Your task to perform on an android device: Open sound settings Image 0: 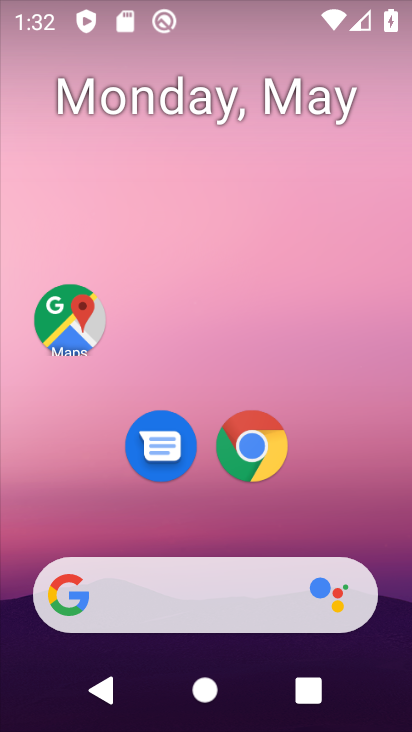
Step 0: press home button
Your task to perform on an android device: Open sound settings Image 1: 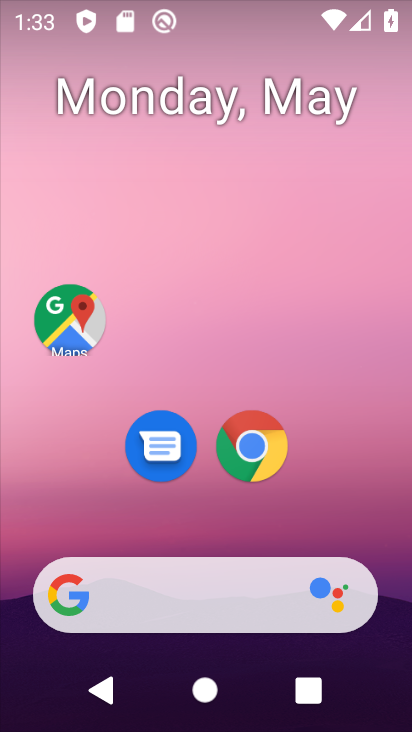
Step 1: drag from (192, 597) to (204, 26)
Your task to perform on an android device: Open sound settings Image 2: 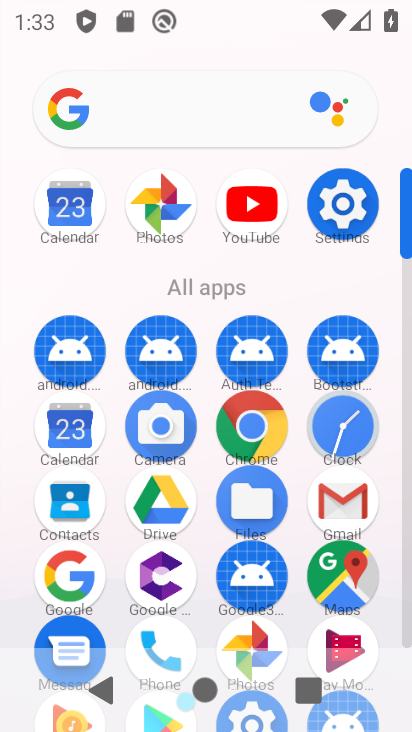
Step 2: click (344, 206)
Your task to perform on an android device: Open sound settings Image 3: 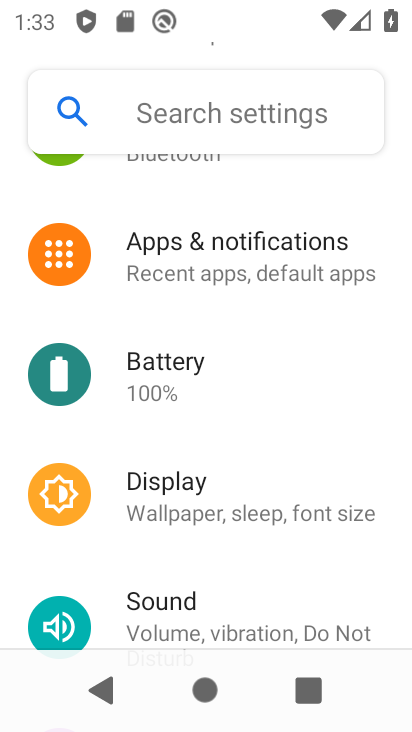
Step 3: click (158, 602)
Your task to perform on an android device: Open sound settings Image 4: 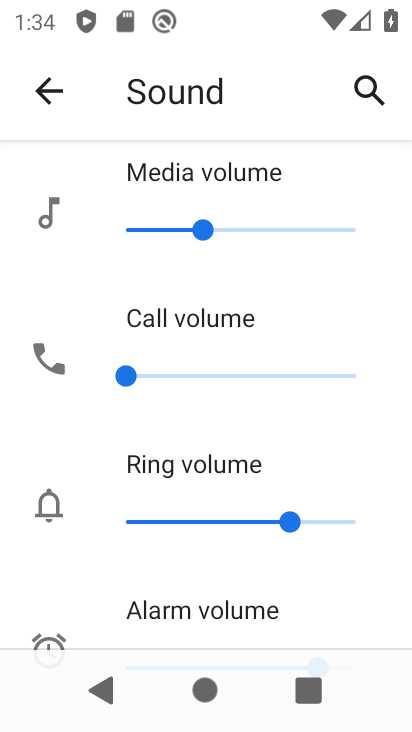
Step 4: task complete